Your task to perform on an android device: Open maps Image 0: 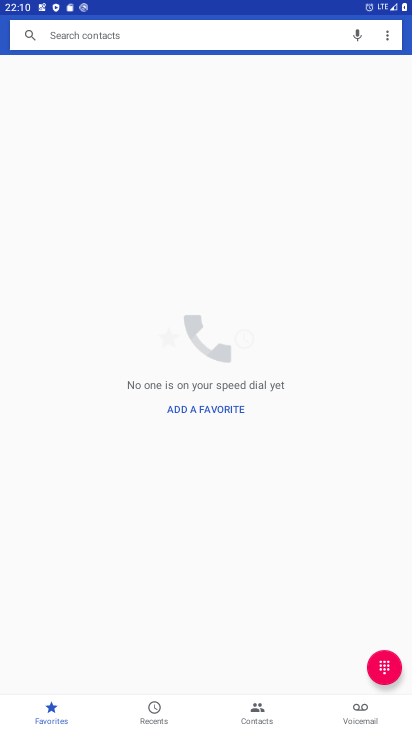
Step 0: press home button
Your task to perform on an android device: Open maps Image 1: 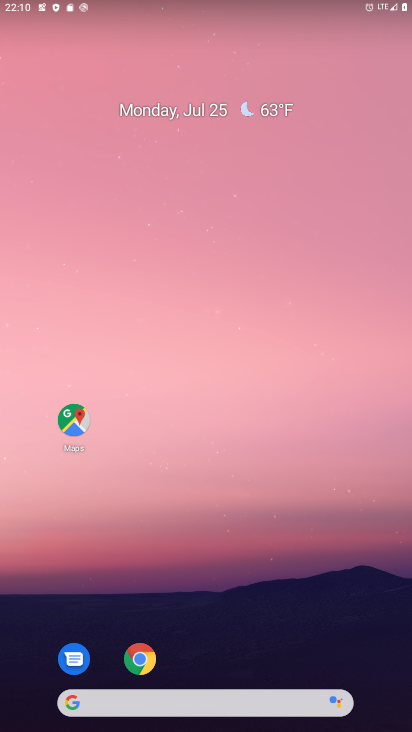
Step 1: drag from (220, 674) to (216, 257)
Your task to perform on an android device: Open maps Image 2: 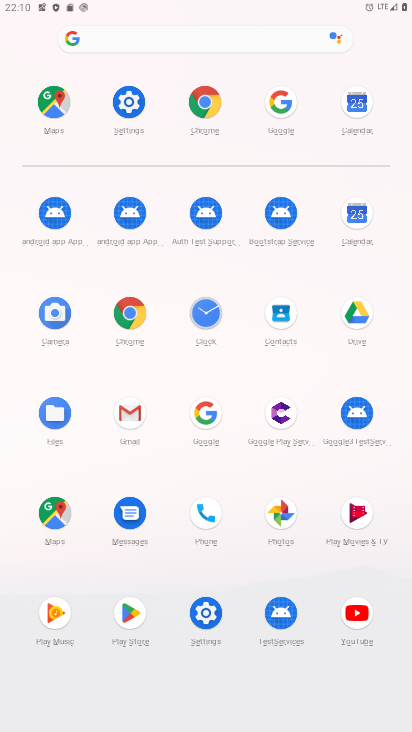
Step 2: click (51, 510)
Your task to perform on an android device: Open maps Image 3: 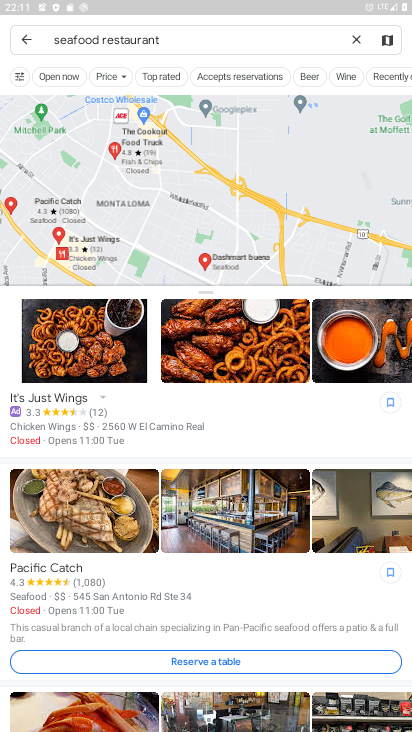
Step 3: task complete